Your task to perform on an android device: change the clock display to analog Image 0: 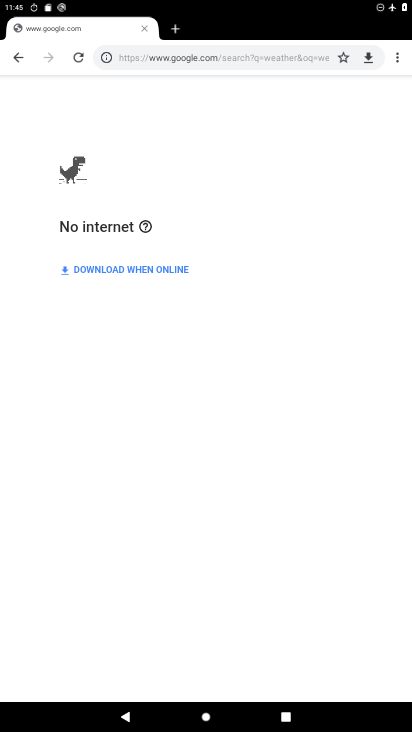
Step 0: press home button
Your task to perform on an android device: change the clock display to analog Image 1: 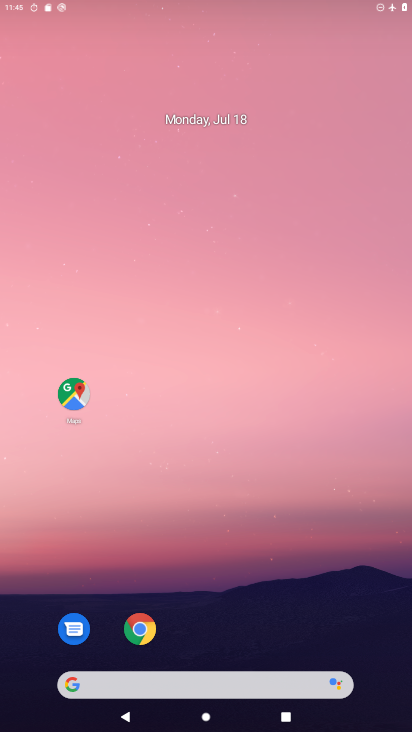
Step 1: drag from (295, 561) to (276, 41)
Your task to perform on an android device: change the clock display to analog Image 2: 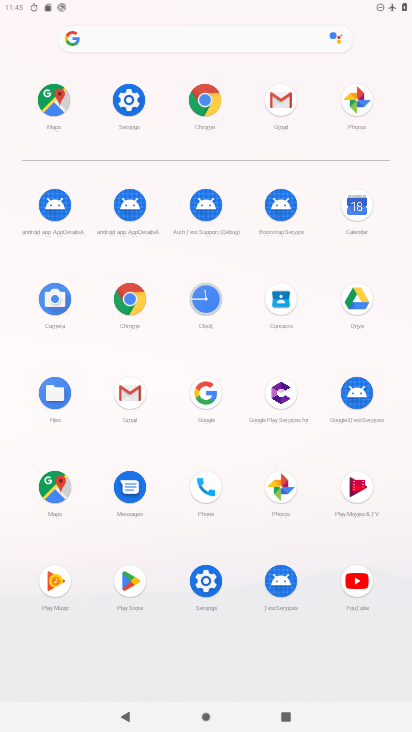
Step 2: click (203, 294)
Your task to perform on an android device: change the clock display to analog Image 3: 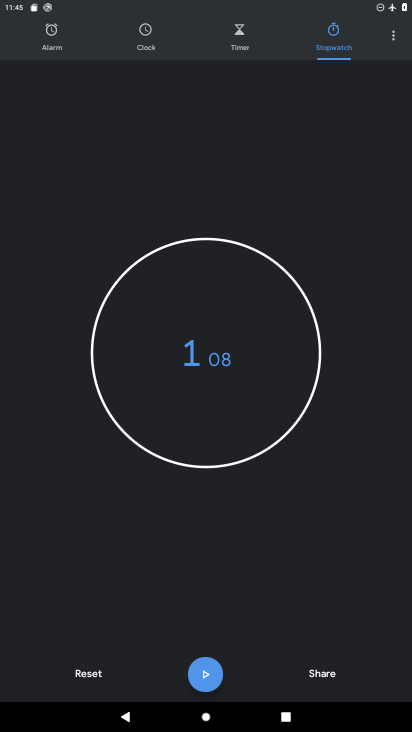
Step 3: click (398, 36)
Your task to perform on an android device: change the clock display to analog Image 4: 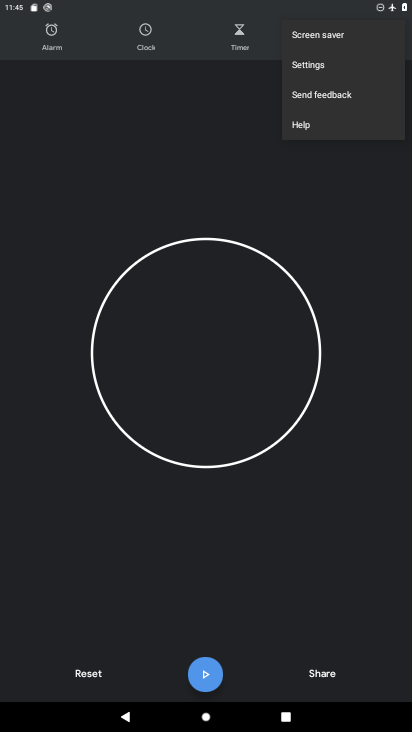
Step 4: click (337, 67)
Your task to perform on an android device: change the clock display to analog Image 5: 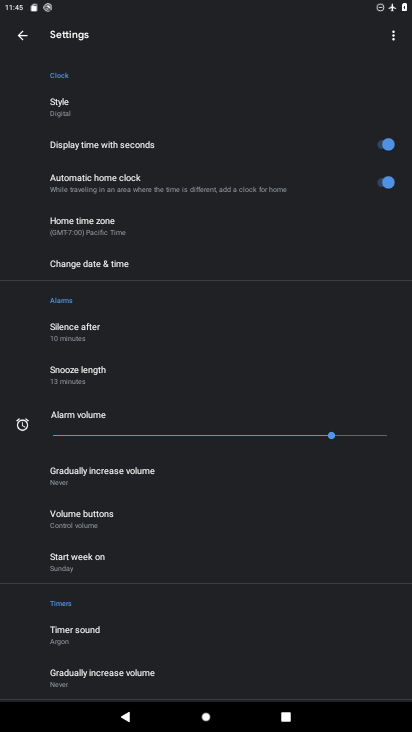
Step 5: click (60, 100)
Your task to perform on an android device: change the clock display to analog Image 6: 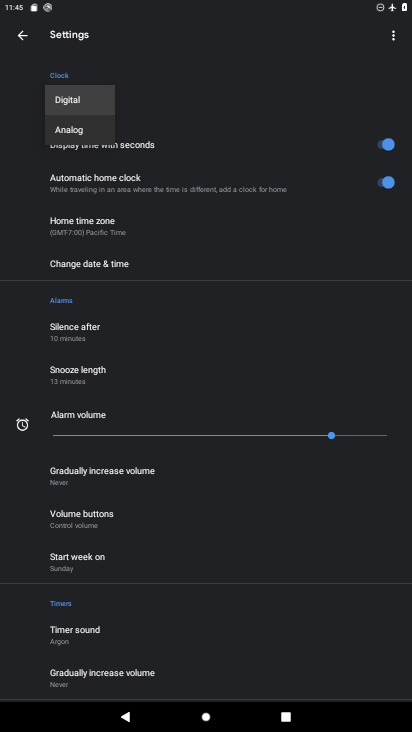
Step 6: click (70, 133)
Your task to perform on an android device: change the clock display to analog Image 7: 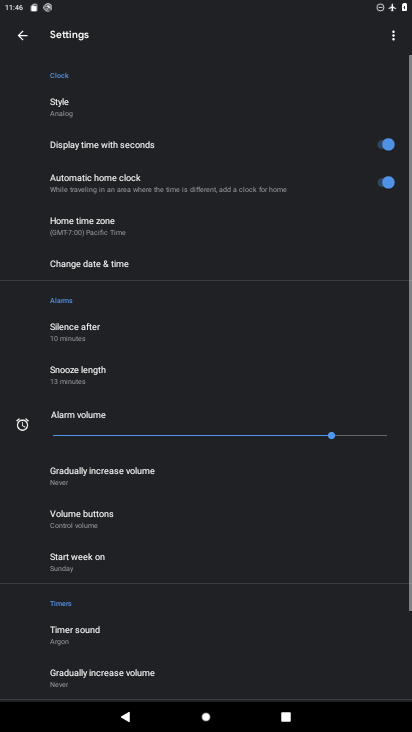
Step 7: task complete